Your task to perform on an android device: open app "Grab" (install if not already installed) and go to login screen Image 0: 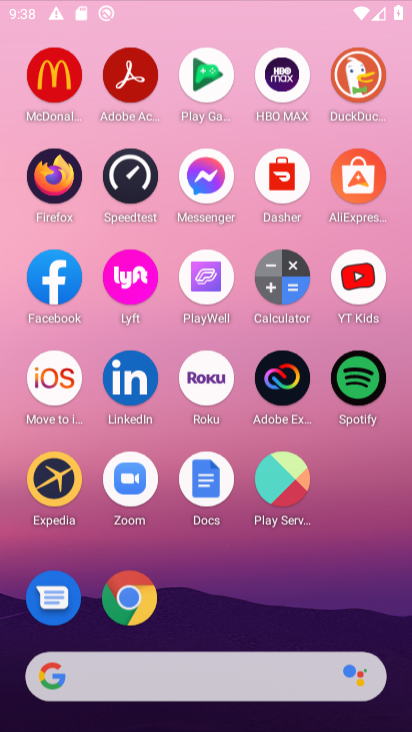
Step 0: click (191, 148)
Your task to perform on an android device: open app "Grab" (install if not already installed) and go to login screen Image 1: 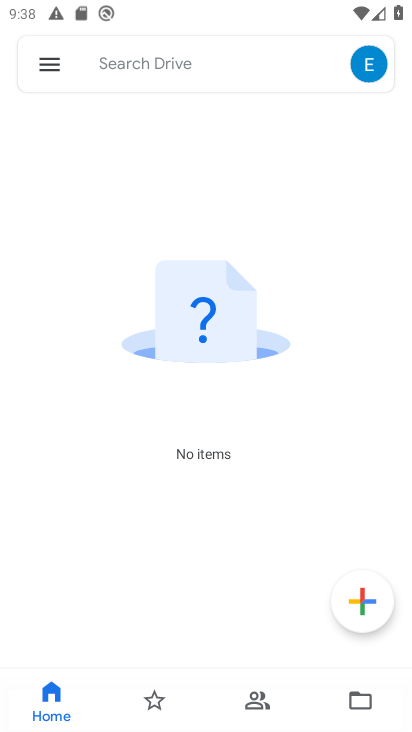
Step 1: press back button
Your task to perform on an android device: open app "Grab" (install if not already installed) and go to login screen Image 2: 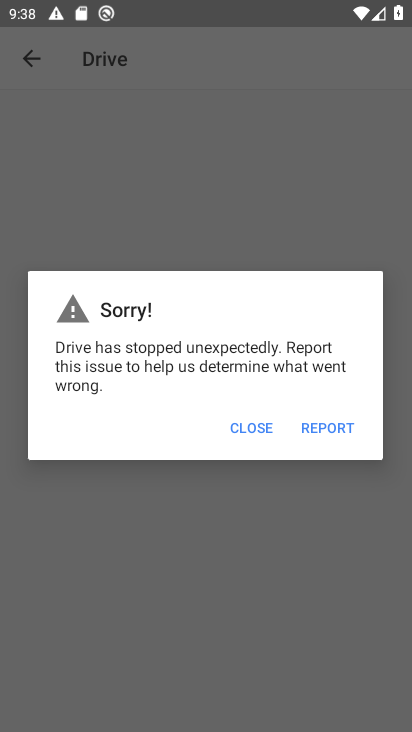
Step 2: press home button
Your task to perform on an android device: open app "Grab" (install if not already installed) and go to login screen Image 3: 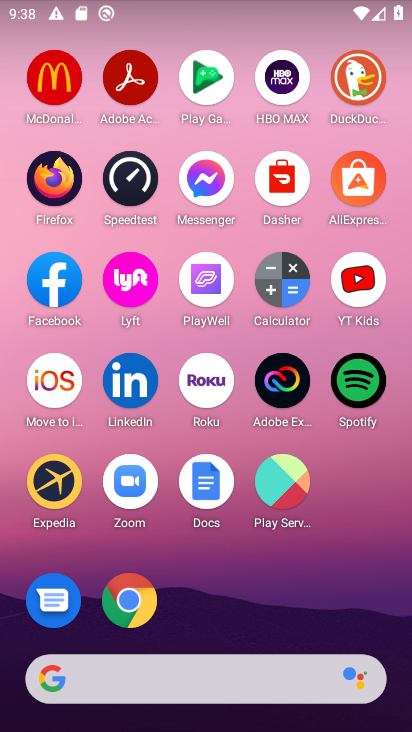
Step 3: drag from (198, 584) to (158, 181)
Your task to perform on an android device: open app "Grab" (install if not already installed) and go to login screen Image 4: 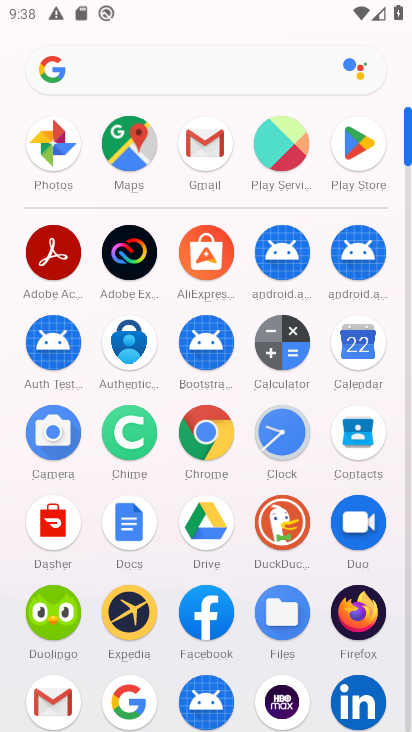
Step 4: click (363, 148)
Your task to perform on an android device: open app "Grab" (install if not already installed) and go to login screen Image 5: 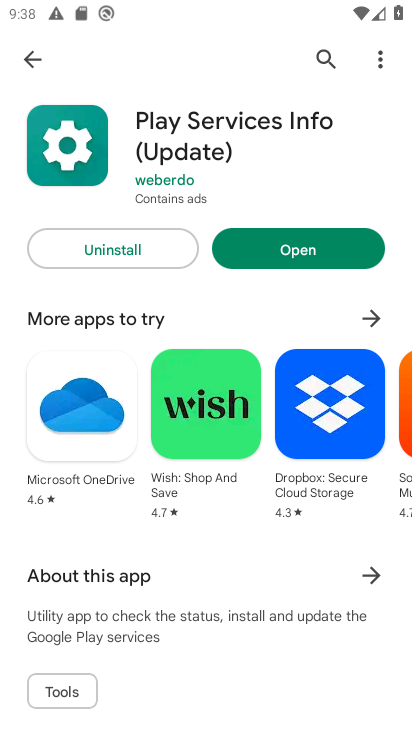
Step 5: click (323, 59)
Your task to perform on an android device: open app "Grab" (install if not already installed) and go to login screen Image 6: 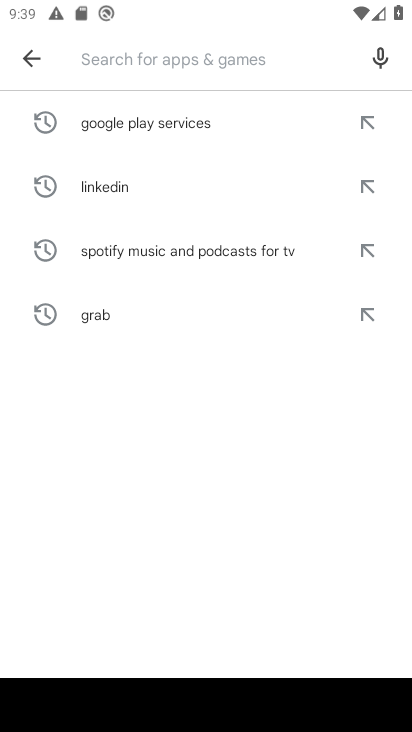
Step 6: type "Grab"
Your task to perform on an android device: open app "Grab" (install if not already installed) and go to login screen Image 7: 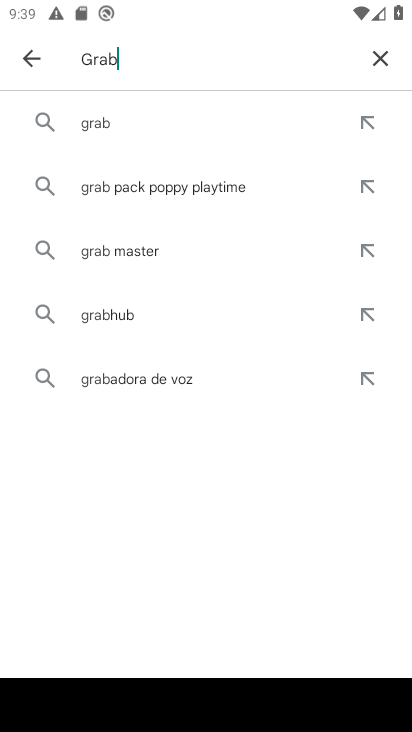
Step 7: click (123, 114)
Your task to perform on an android device: open app "Grab" (install if not already installed) and go to login screen Image 8: 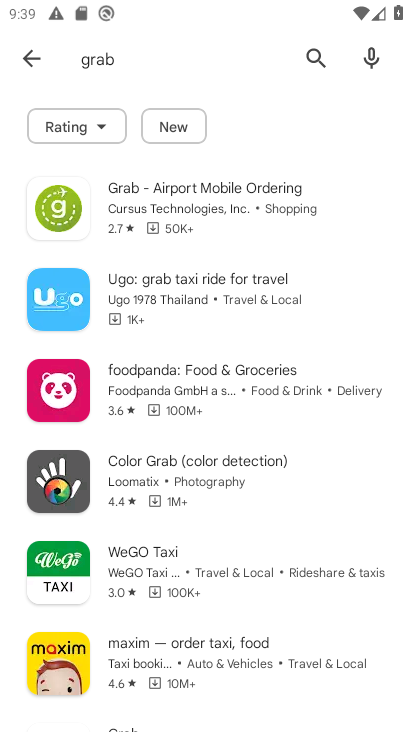
Step 8: click (172, 216)
Your task to perform on an android device: open app "Grab" (install if not already installed) and go to login screen Image 9: 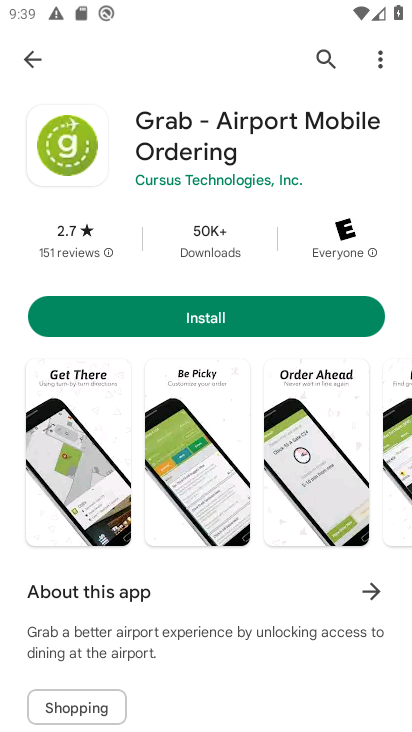
Step 9: click (192, 315)
Your task to perform on an android device: open app "Grab" (install if not already installed) and go to login screen Image 10: 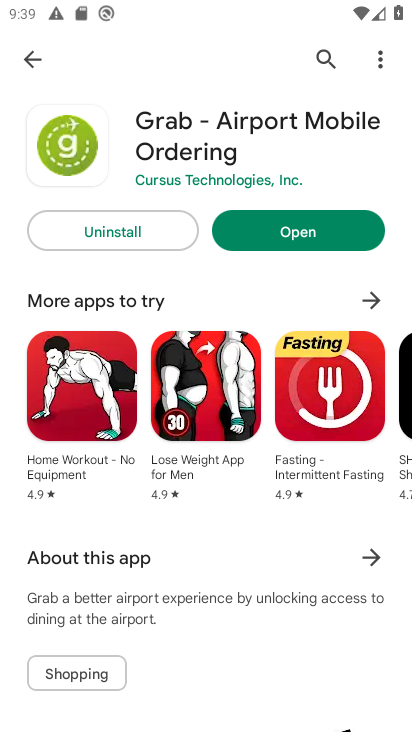
Step 10: click (307, 237)
Your task to perform on an android device: open app "Grab" (install if not already installed) and go to login screen Image 11: 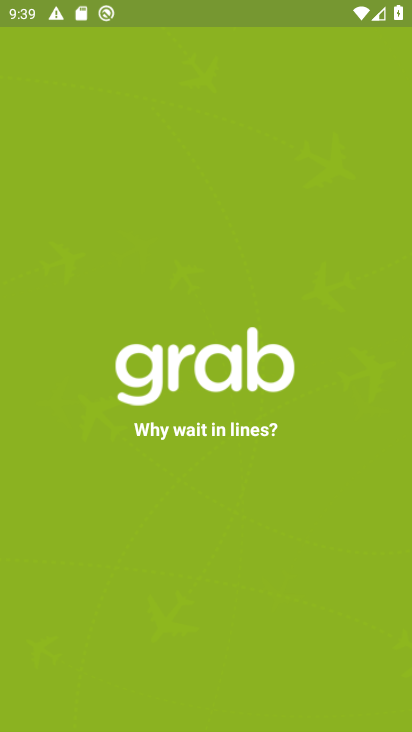
Step 11: task complete